Your task to perform on an android device: turn on the 24-hour format for clock Image 0: 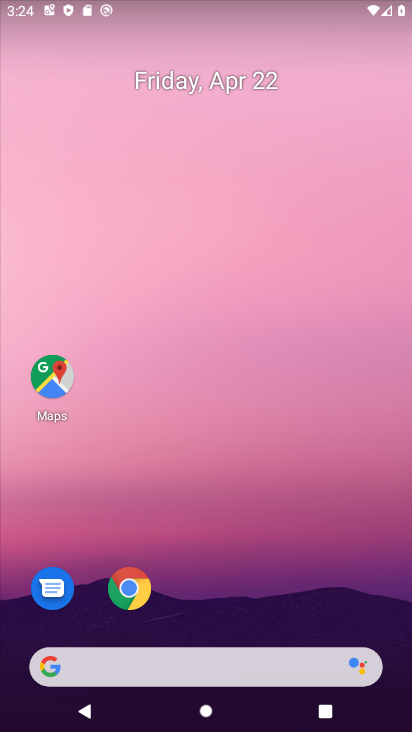
Step 0: drag from (211, 563) to (302, 78)
Your task to perform on an android device: turn on the 24-hour format for clock Image 1: 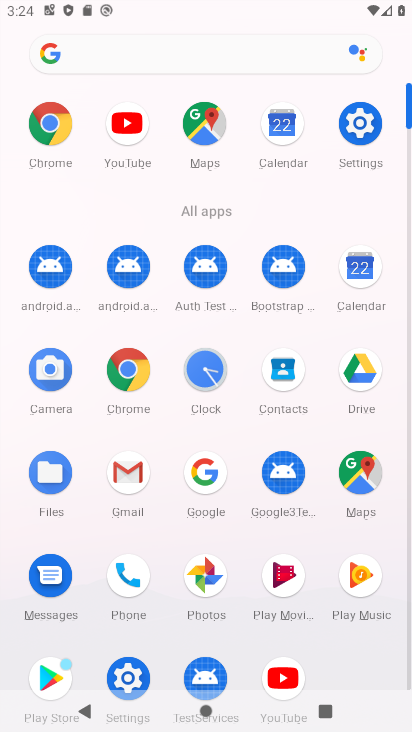
Step 1: click (215, 360)
Your task to perform on an android device: turn on the 24-hour format for clock Image 2: 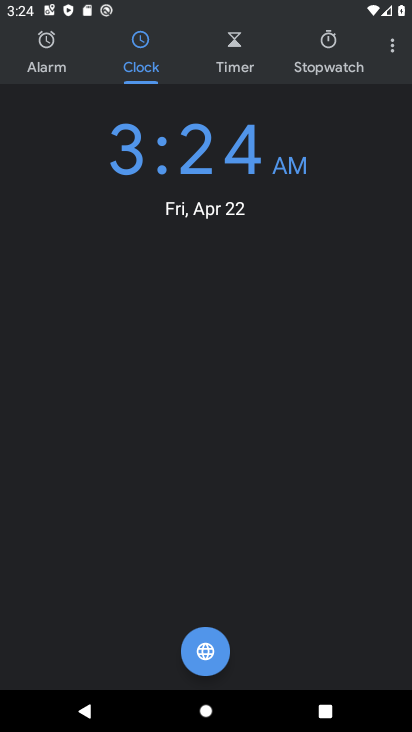
Step 2: click (389, 40)
Your task to perform on an android device: turn on the 24-hour format for clock Image 3: 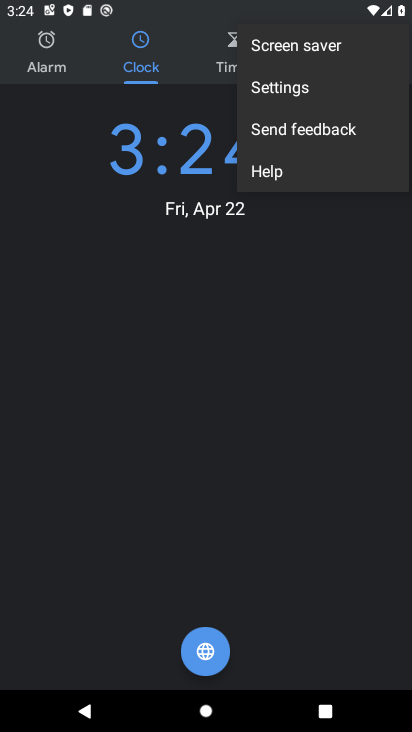
Step 3: click (345, 87)
Your task to perform on an android device: turn on the 24-hour format for clock Image 4: 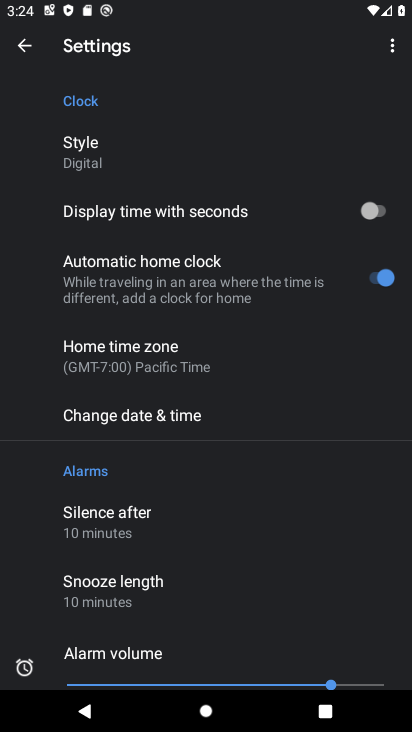
Step 4: click (215, 418)
Your task to perform on an android device: turn on the 24-hour format for clock Image 5: 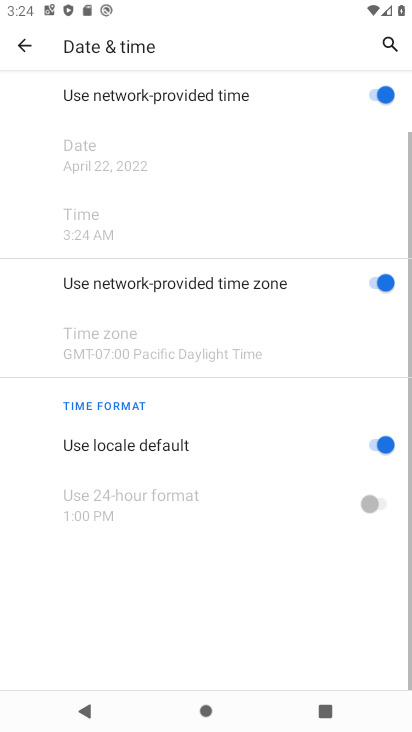
Step 5: drag from (261, 591) to (303, 164)
Your task to perform on an android device: turn on the 24-hour format for clock Image 6: 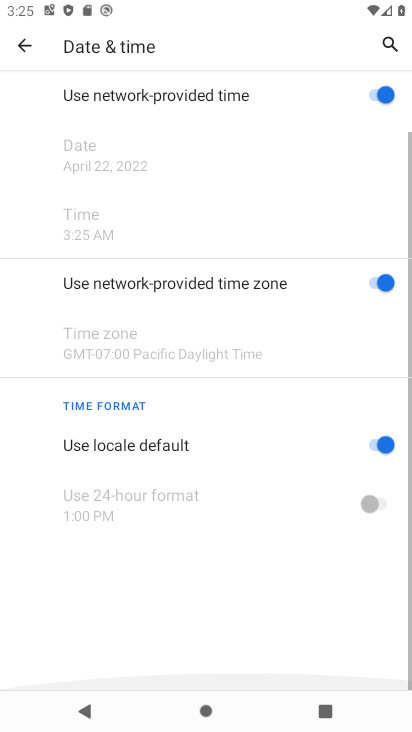
Step 6: click (377, 444)
Your task to perform on an android device: turn on the 24-hour format for clock Image 7: 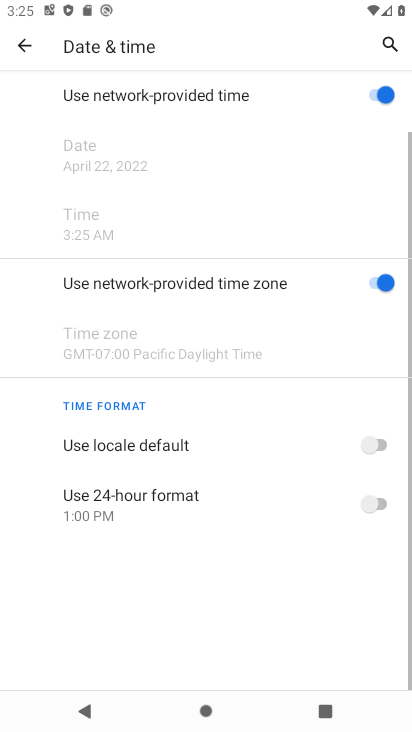
Step 7: click (384, 498)
Your task to perform on an android device: turn on the 24-hour format for clock Image 8: 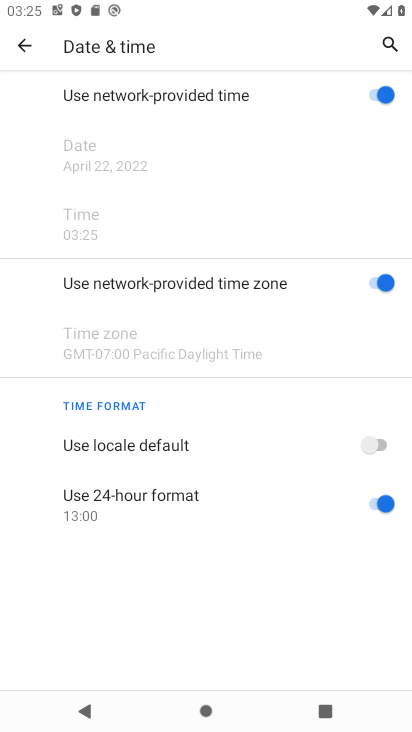
Step 8: task complete